Your task to perform on an android device: Go to wifi settings Image 0: 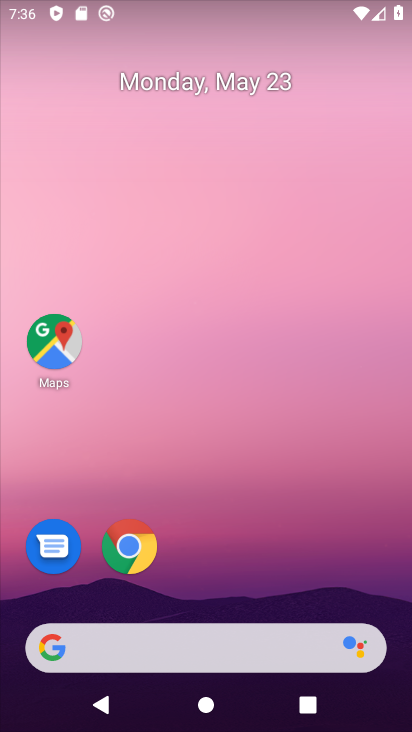
Step 0: drag from (394, 594) to (402, 185)
Your task to perform on an android device: Go to wifi settings Image 1: 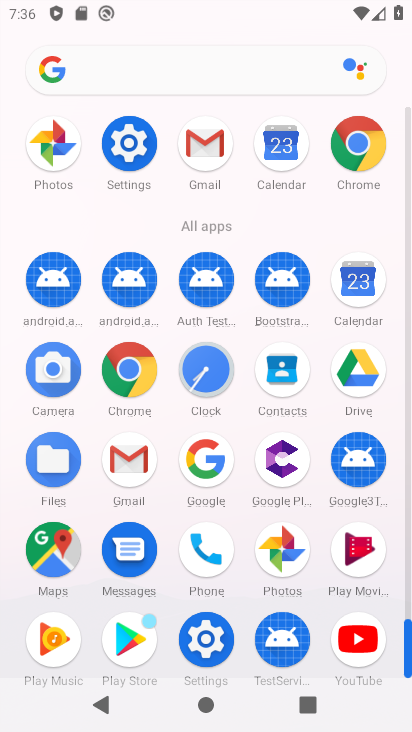
Step 1: drag from (399, 597) to (399, 458)
Your task to perform on an android device: Go to wifi settings Image 2: 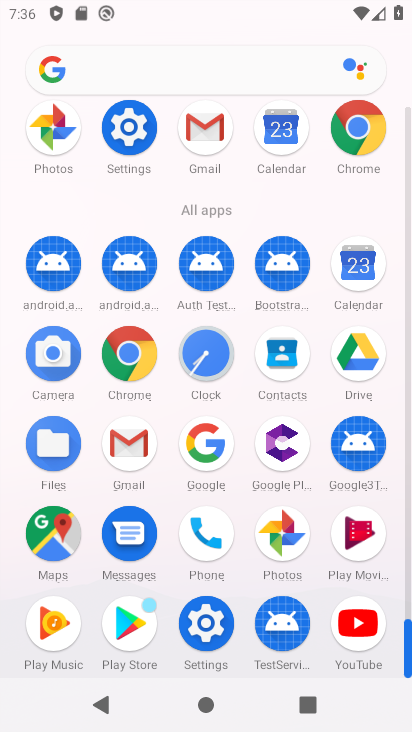
Step 2: click (194, 636)
Your task to perform on an android device: Go to wifi settings Image 3: 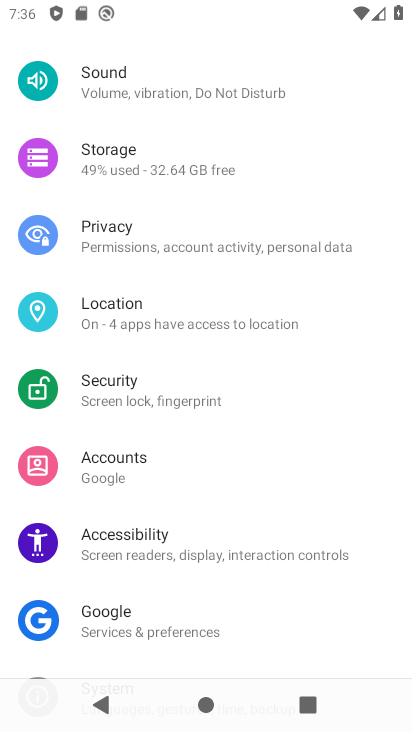
Step 3: drag from (366, 613) to (368, 455)
Your task to perform on an android device: Go to wifi settings Image 4: 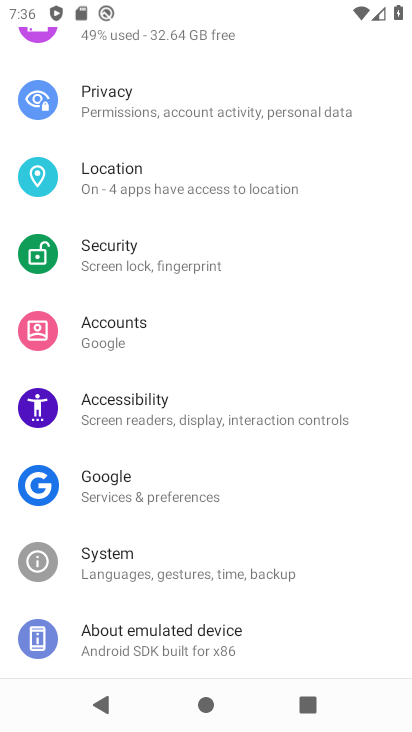
Step 4: drag from (370, 402) to (366, 493)
Your task to perform on an android device: Go to wifi settings Image 5: 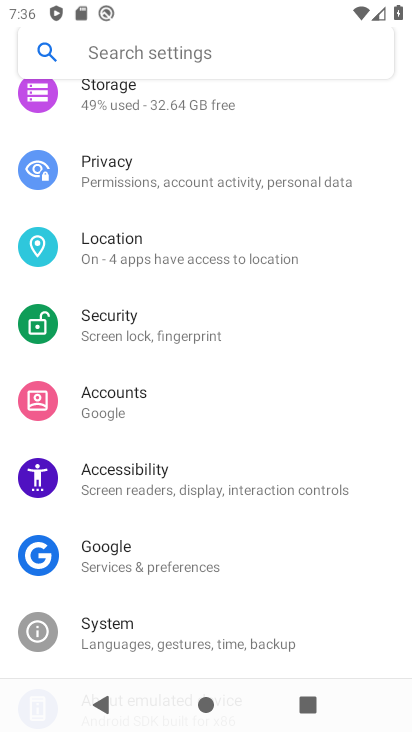
Step 5: drag from (373, 385) to (366, 499)
Your task to perform on an android device: Go to wifi settings Image 6: 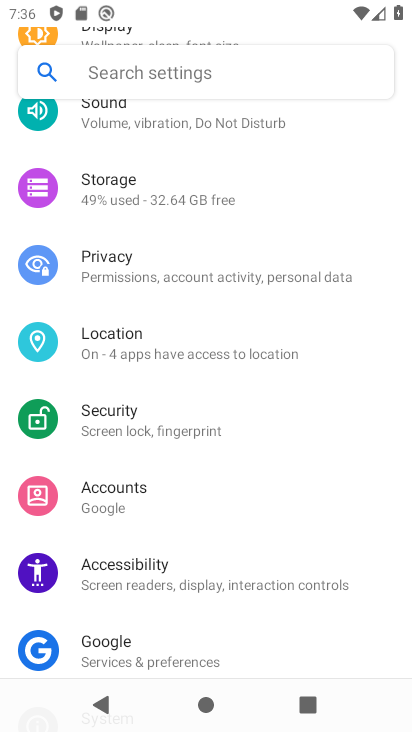
Step 6: drag from (364, 409) to (355, 490)
Your task to perform on an android device: Go to wifi settings Image 7: 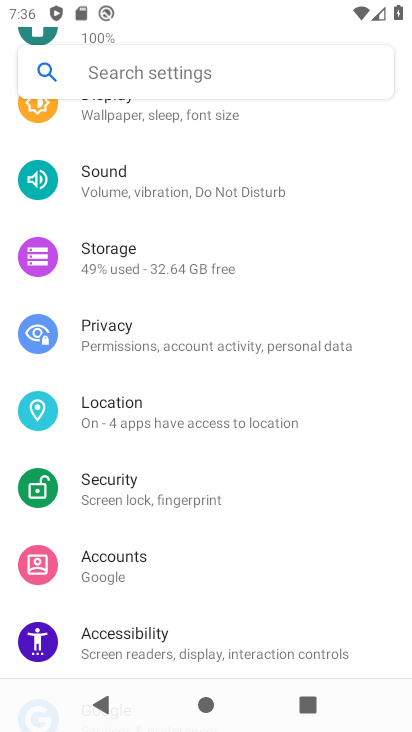
Step 7: drag from (385, 376) to (384, 471)
Your task to perform on an android device: Go to wifi settings Image 8: 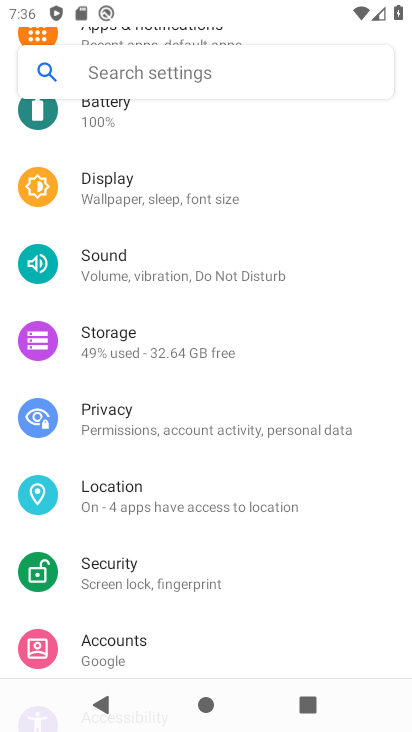
Step 8: drag from (388, 358) to (375, 454)
Your task to perform on an android device: Go to wifi settings Image 9: 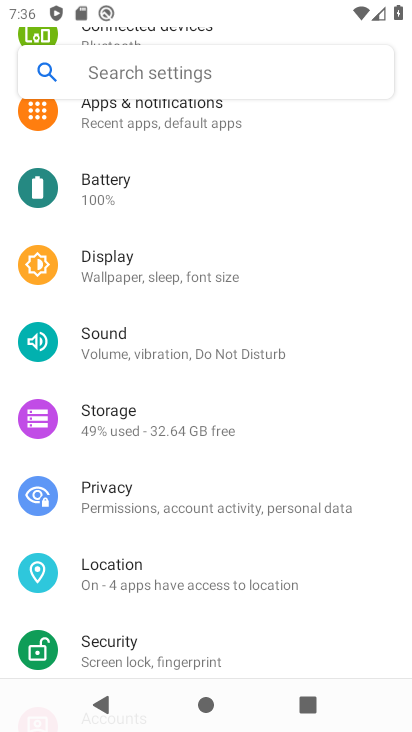
Step 9: drag from (363, 322) to (373, 434)
Your task to perform on an android device: Go to wifi settings Image 10: 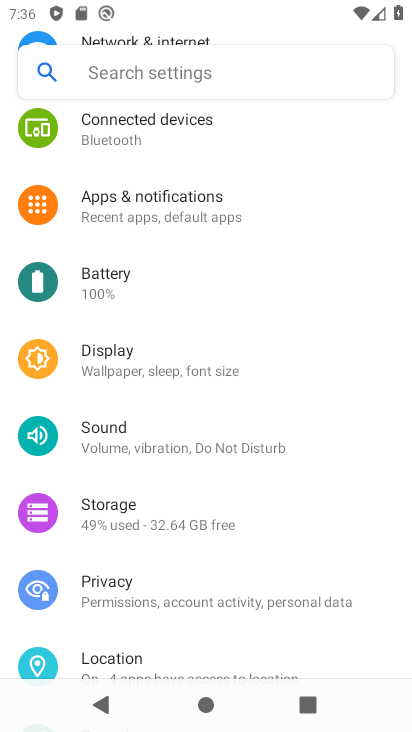
Step 10: drag from (386, 327) to (384, 417)
Your task to perform on an android device: Go to wifi settings Image 11: 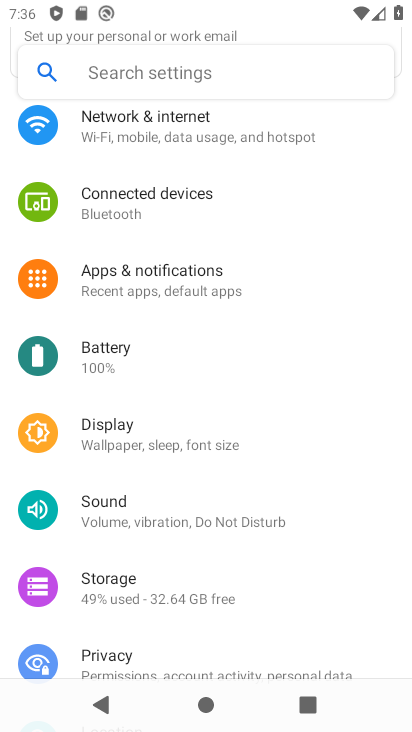
Step 11: drag from (371, 289) to (357, 368)
Your task to perform on an android device: Go to wifi settings Image 12: 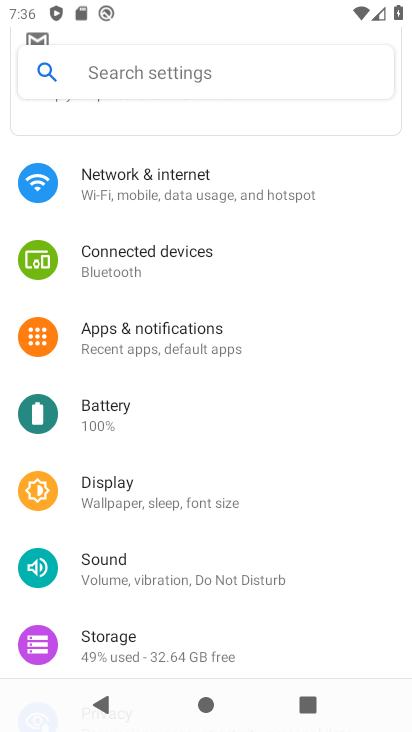
Step 12: drag from (346, 272) to (355, 426)
Your task to perform on an android device: Go to wifi settings Image 13: 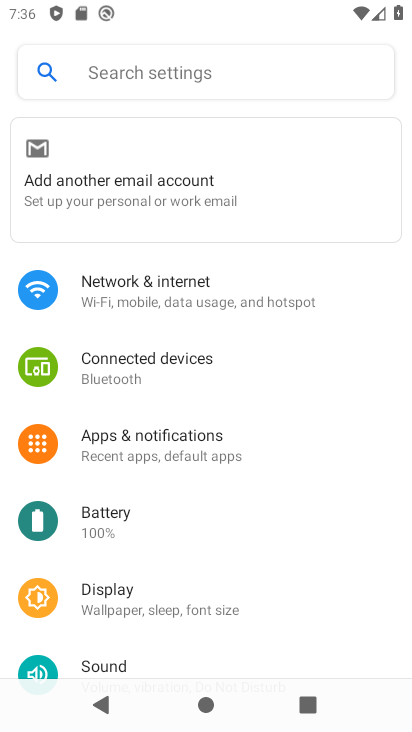
Step 13: drag from (349, 239) to (358, 378)
Your task to perform on an android device: Go to wifi settings Image 14: 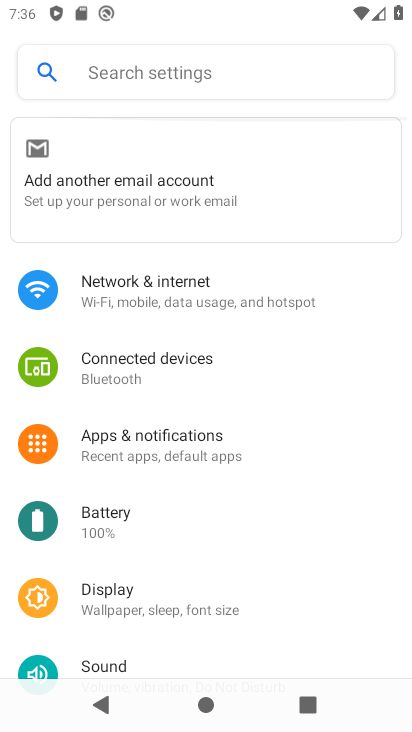
Step 14: click (240, 286)
Your task to perform on an android device: Go to wifi settings Image 15: 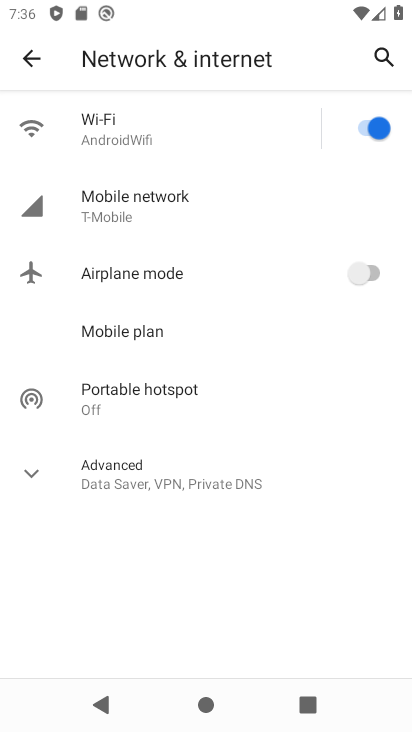
Step 15: click (142, 127)
Your task to perform on an android device: Go to wifi settings Image 16: 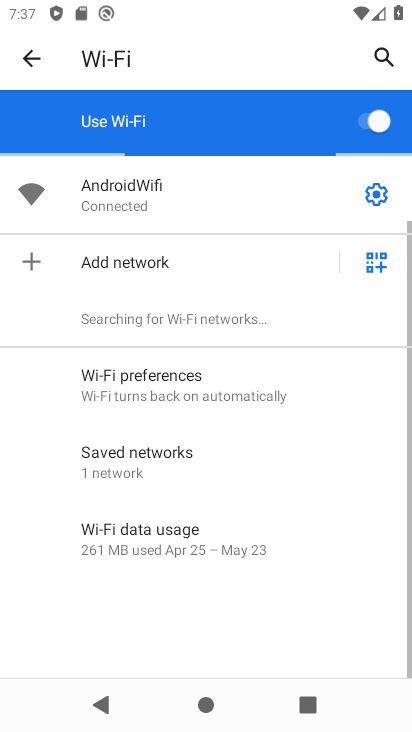
Step 16: task complete